Your task to perform on an android device: Open Chrome and go to settings Image 0: 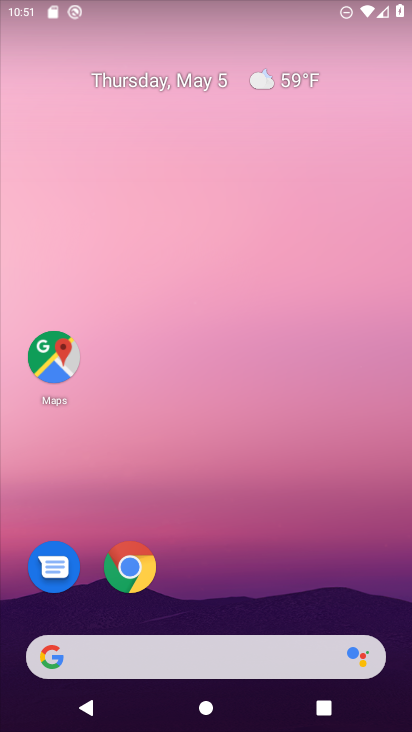
Step 0: click (131, 562)
Your task to perform on an android device: Open Chrome and go to settings Image 1: 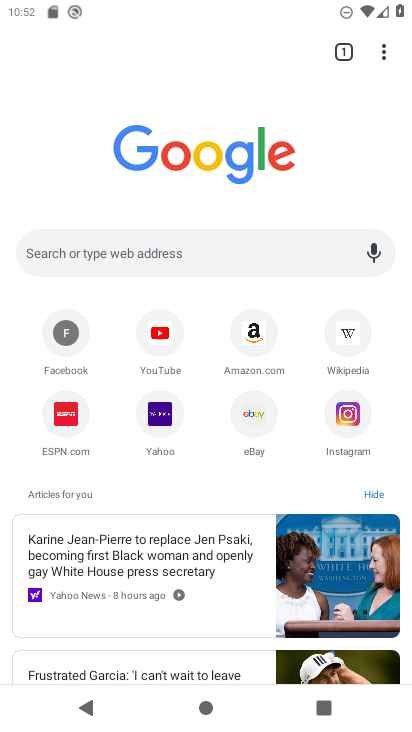
Step 1: task complete